Your task to perform on an android device: Open ESPN.com Image 0: 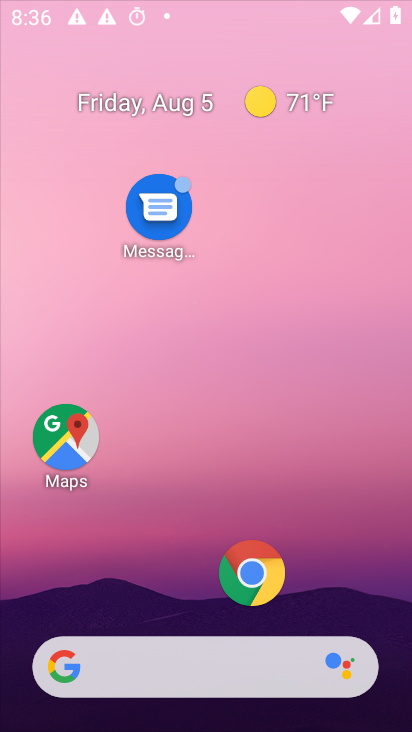
Step 0: press home button
Your task to perform on an android device: Open ESPN.com Image 1: 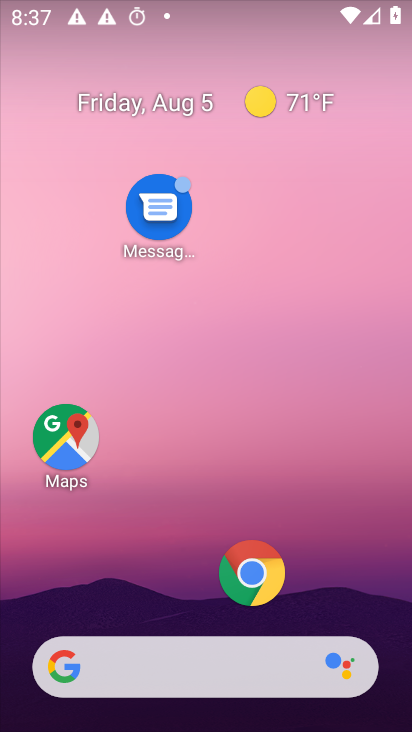
Step 1: click (250, 569)
Your task to perform on an android device: Open ESPN.com Image 2: 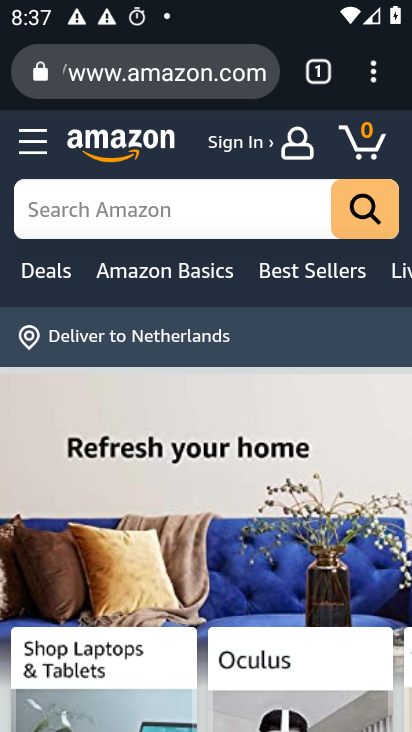
Step 2: click (322, 64)
Your task to perform on an android device: Open ESPN.com Image 3: 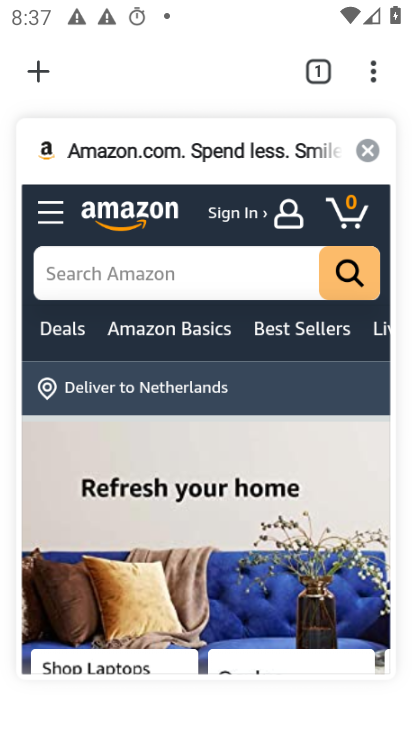
Step 3: click (37, 70)
Your task to perform on an android device: Open ESPN.com Image 4: 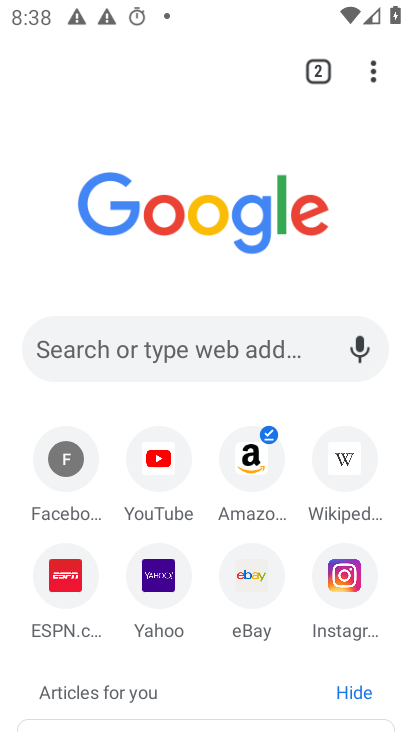
Step 4: click (57, 576)
Your task to perform on an android device: Open ESPN.com Image 5: 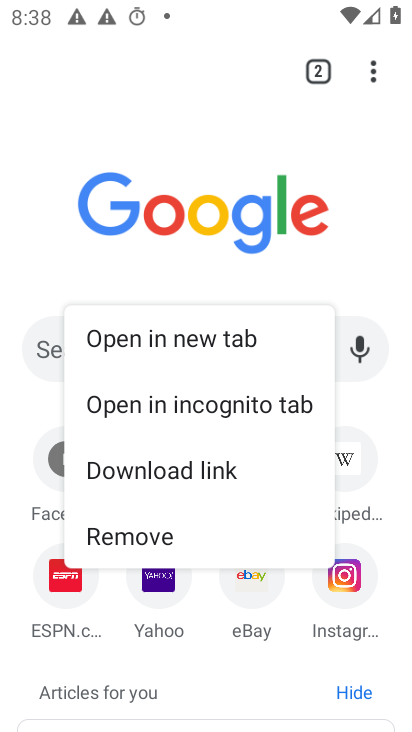
Step 5: click (53, 576)
Your task to perform on an android device: Open ESPN.com Image 6: 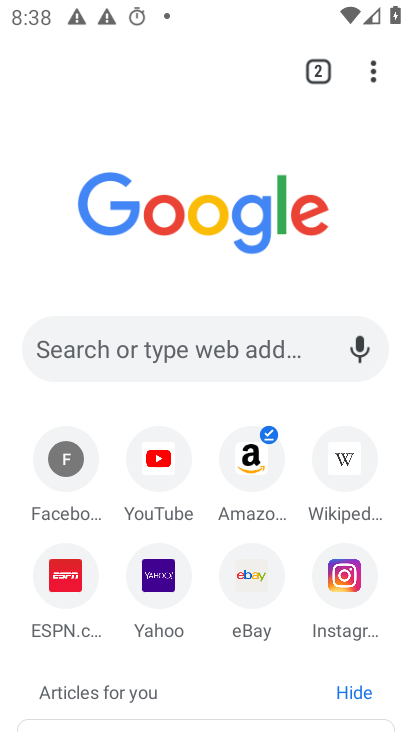
Step 6: click (62, 571)
Your task to perform on an android device: Open ESPN.com Image 7: 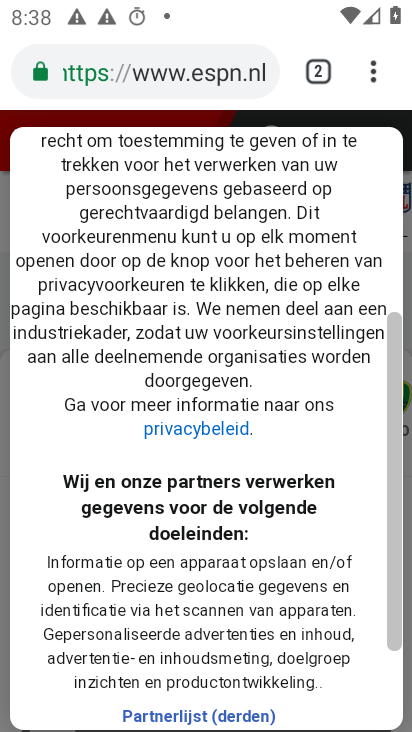
Step 7: drag from (228, 635) to (234, 228)
Your task to perform on an android device: Open ESPN.com Image 8: 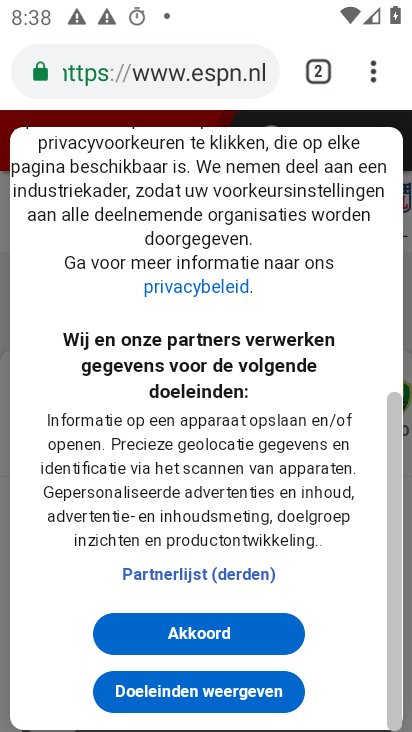
Step 8: click (205, 626)
Your task to perform on an android device: Open ESPN.com Image 9: 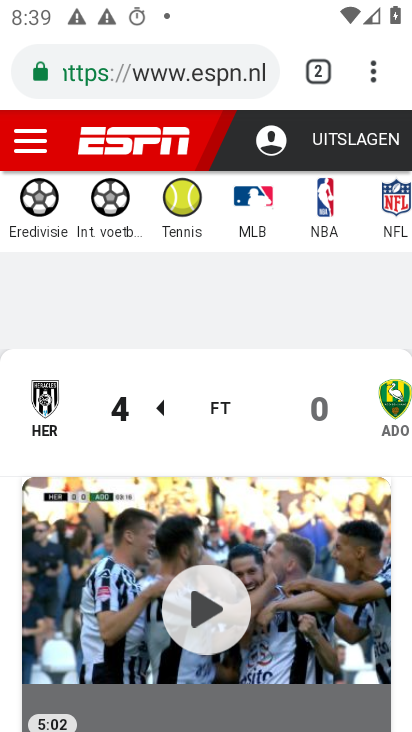
Step 9: task complete